Your task to perform on an android device: Turn on the flashlight Image 0: 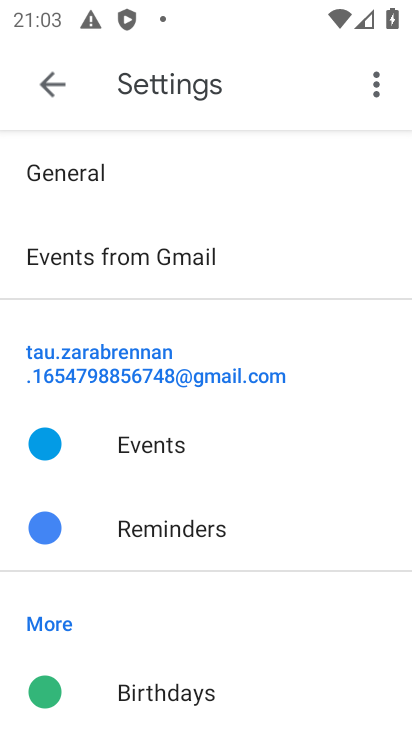
Step 0: press home button
Your task to perform on an android device: Turn on the flashlight Image 1: 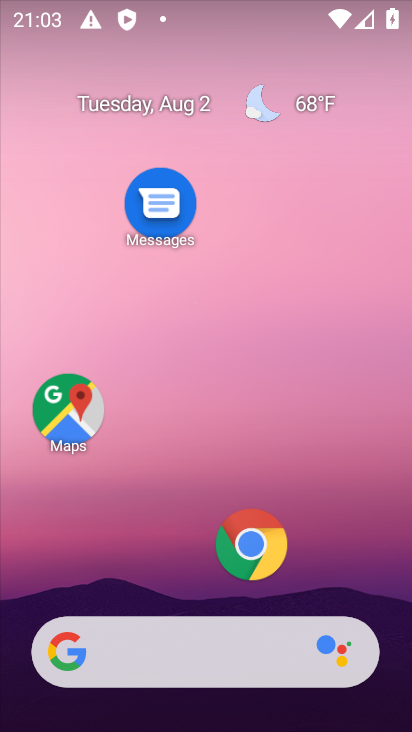
Step 1: drag from (193, 569) to (242, 227)
Your task to perform on an android device: Turn on the flashlight Image 2: 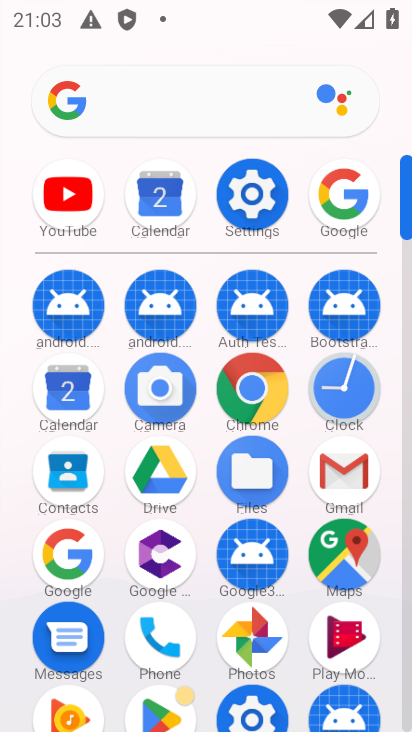
Step 2: click (260, 203)
Your task to perform on an android device: Turn on the flashlight Image 3: 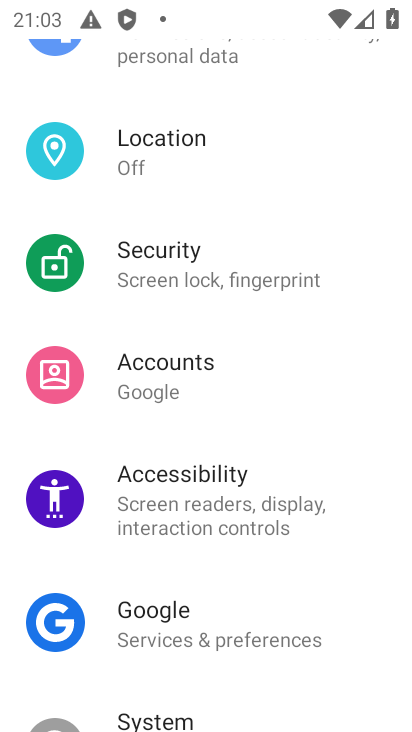
Step 3: task complete